Your task to perform on an android device: What's the weather going to be tomorrow? Image 0: 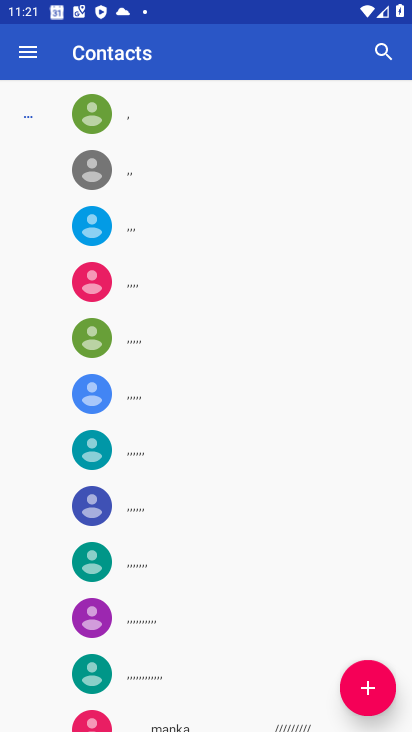
Step 0: press home button
Your task to perform on an android device: What's the weather going to be tomorrow? Image 1: 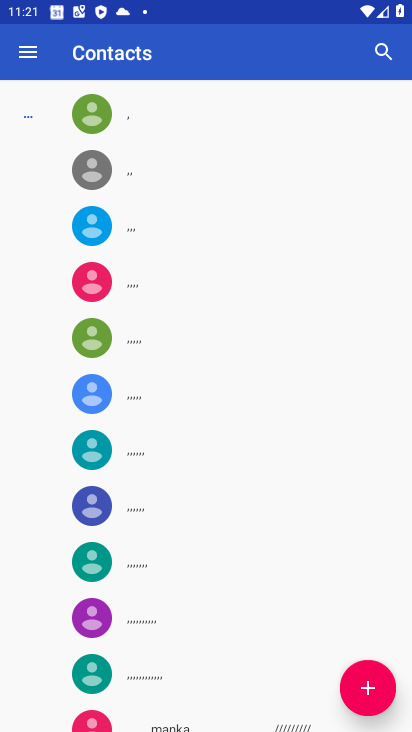
Step 1: press home button
Your task to perform on an android device: What's the weather going to be tomorrow? Image 2: 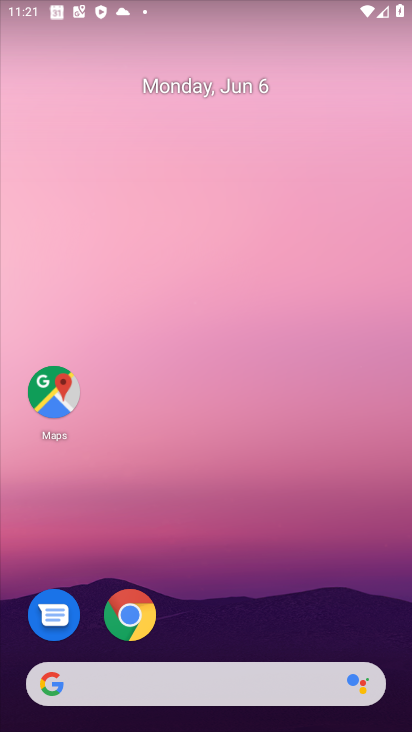
Step 2: drag from (253, 622) to (254, 155)
Your task to perform on an android device: What's the weather going to be tomorrow? Image 3: 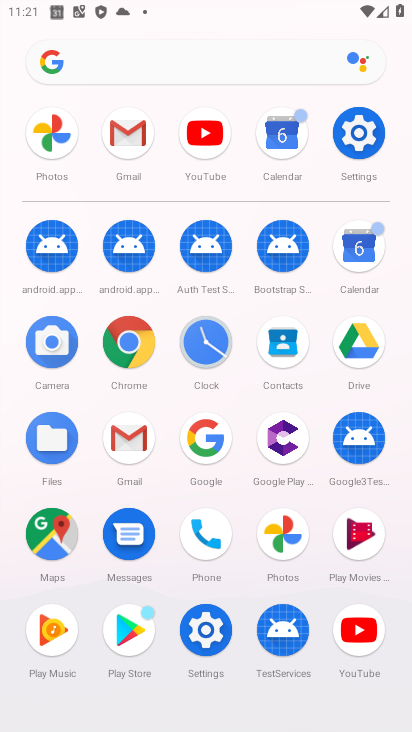
Step 3: click (284, 142)
Your task to perform on an android device: What's the weather going to be tomorrow? Image 4: 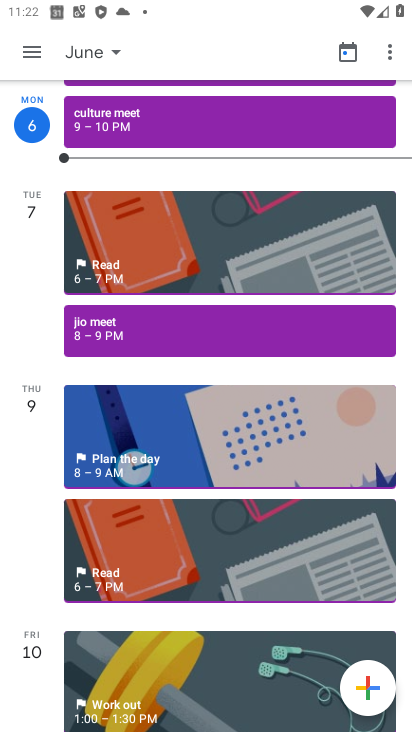
Step 4: task complete